Your task to perform on an android device: Open Youtube and go to the subscriptions tab Image 0: 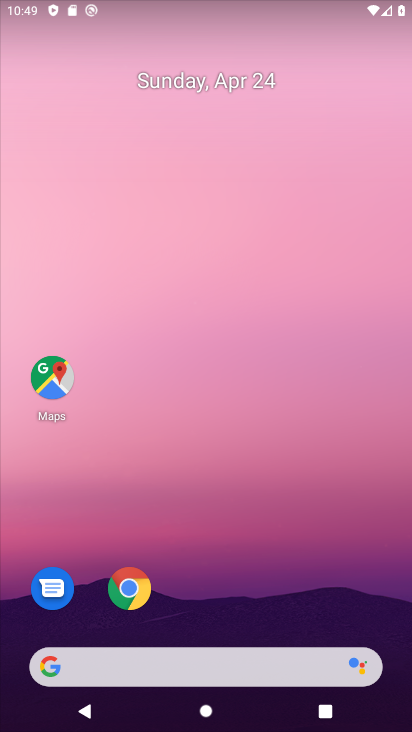
Step 0: drag from (203, 668) to (248, 328)
Your task to perform on an android device: Open Youtube and go to the subscriptions tab Image 1: 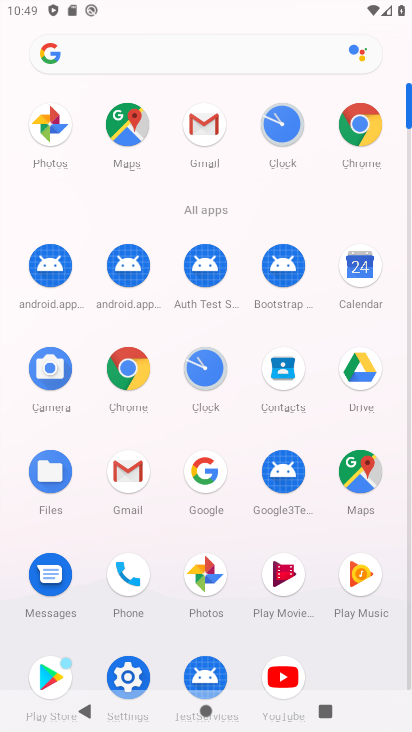
Step 1: click (289, 673)
Your task to perform on an android device: Open Youtube and go to the subscriptions tab Image 2: 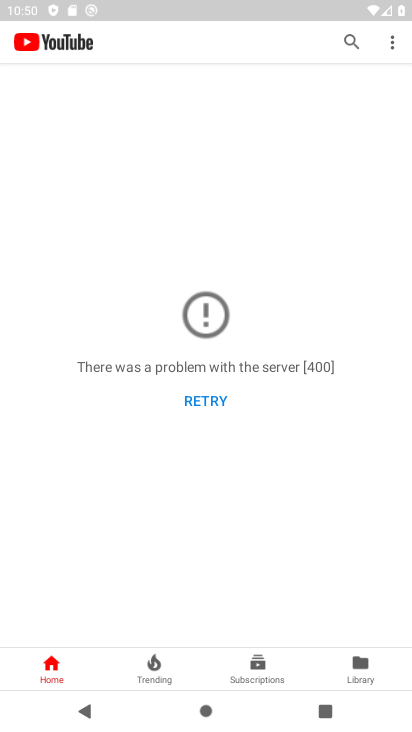
Step 2: click (265, 677)
Your task to perform on an android device: Open Youtube and go to the subscriptions tab Image 3: 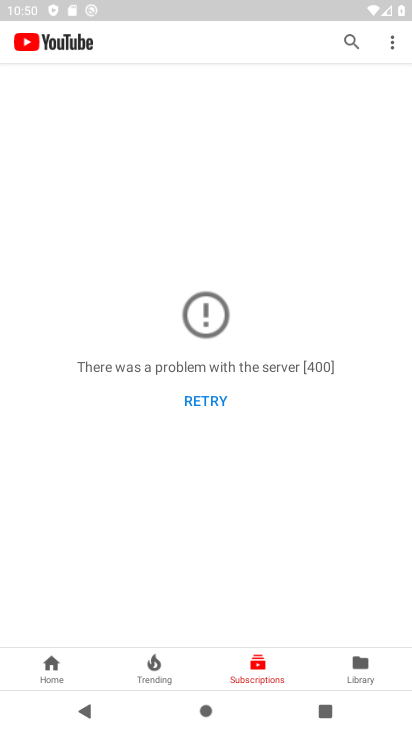
Step 3: task complete